Your task to perform on an android device: Open accessibility settings Image 0: 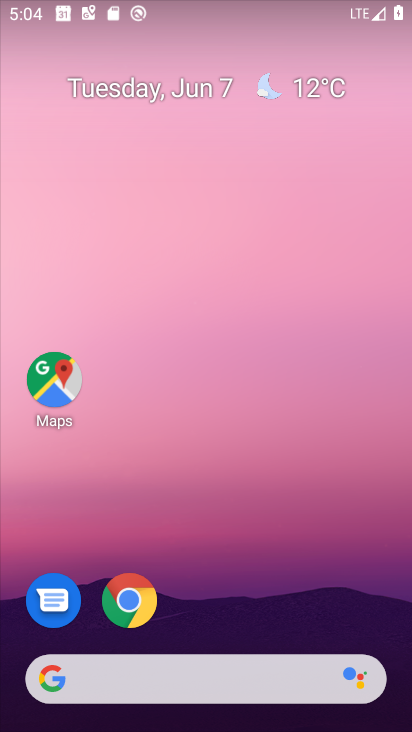
Step 0: click (225, 197)
Your task to perform on an android device: Open accessibility settings Image 1: 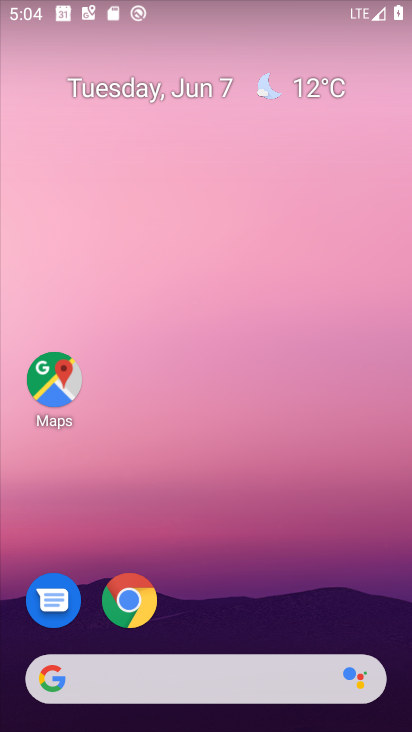
Step 1: drag from (354, 594) to (327, 156)
Your task to perform on an android device: Open accessibility settings Image 2: 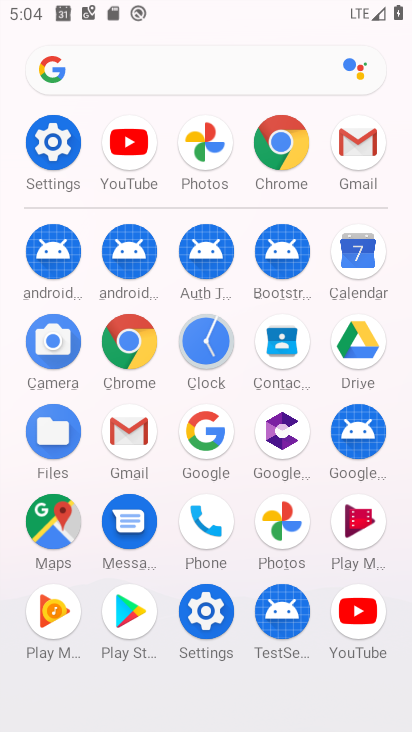
Step 2: click (47, 138)
Your task to perform on an android device: Open accessibility settings Image 3: 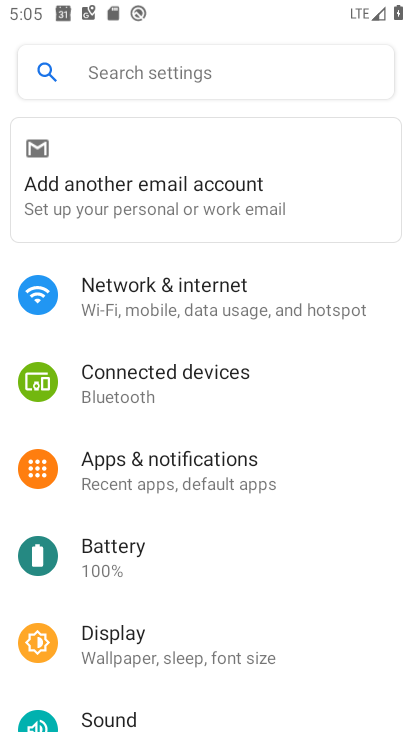
Step 3: drag from (219, 581) to (225, 186)
Your task to perform on an android device: Open accessibility settings Image 4: 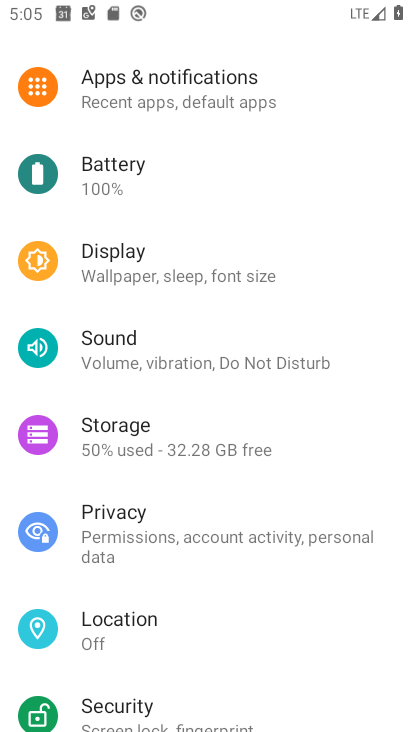
Step 4: drag from (183, 593) to (231, 124)
Your task to perform on an android device: Open accessibility settings Image 5: 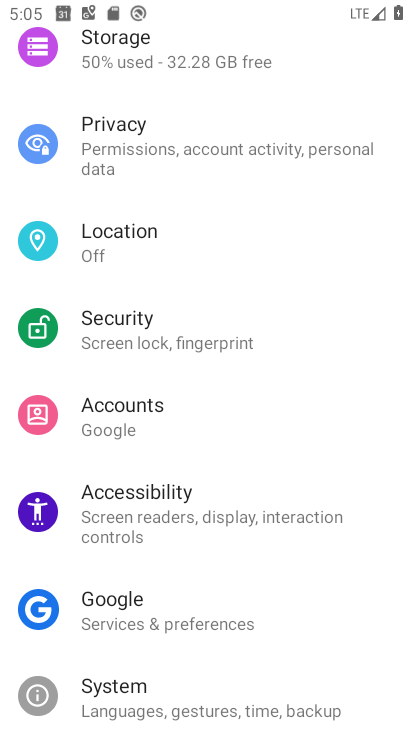
Step 5: click (171, 515)
Your task to perform on an android device: Open accessibility settings Image 6: 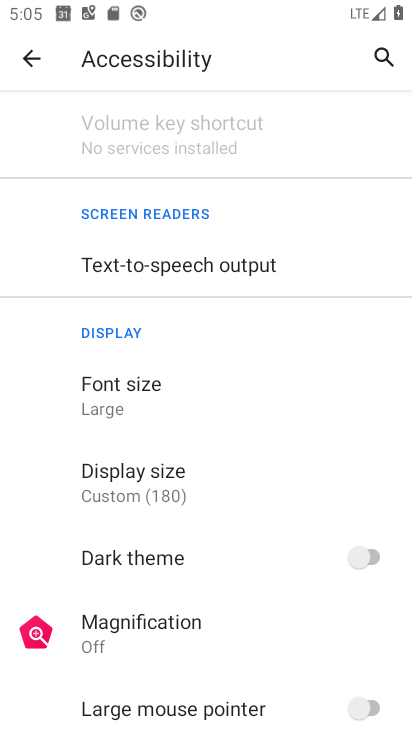
Step 6: task complete